Your task to perform on an android device: Open Reddit.com Image 0: 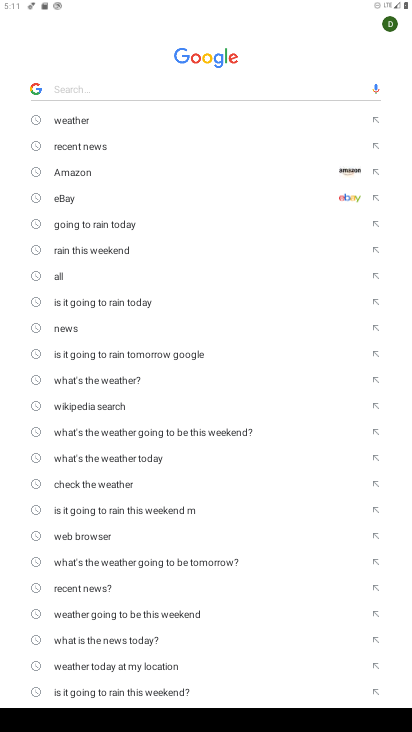
Step 0: press home button
Your task to perform on an android device: Open Reddit.com Image 1: 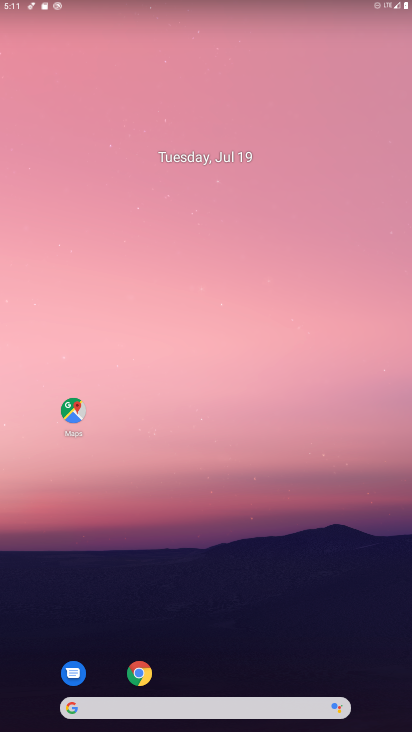
Step 1: click (137, 670)
Your task to perform on an android device: Open Reddit.com Image 2: 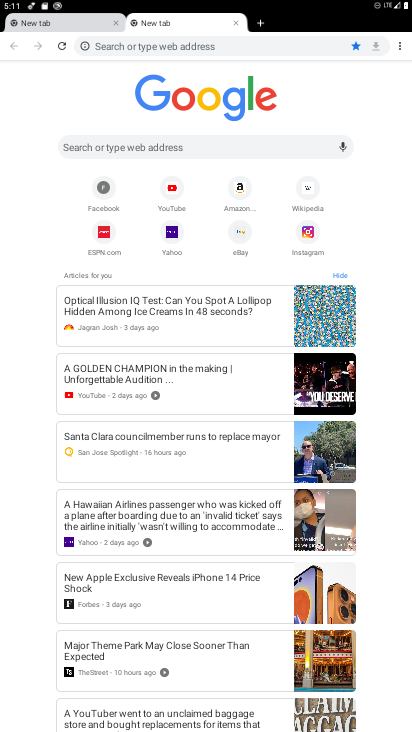
Step 2: click (150, 142)
Your task to perform on an android device: Open Reddit.com Image 3: 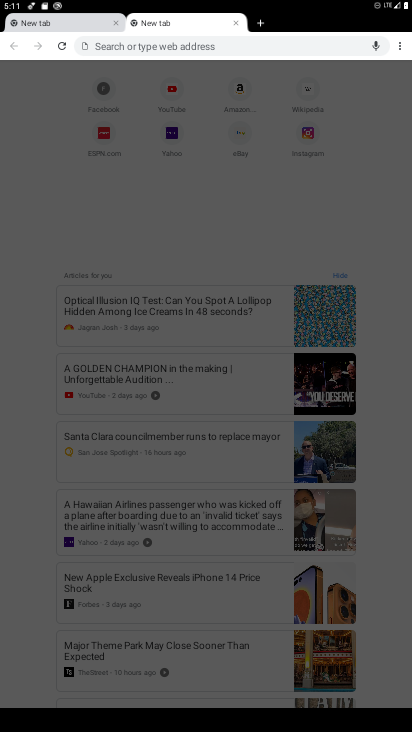
Step 3: type "reddit.com"
Your task to perform on an android device: Open Reddit.com Image 4: 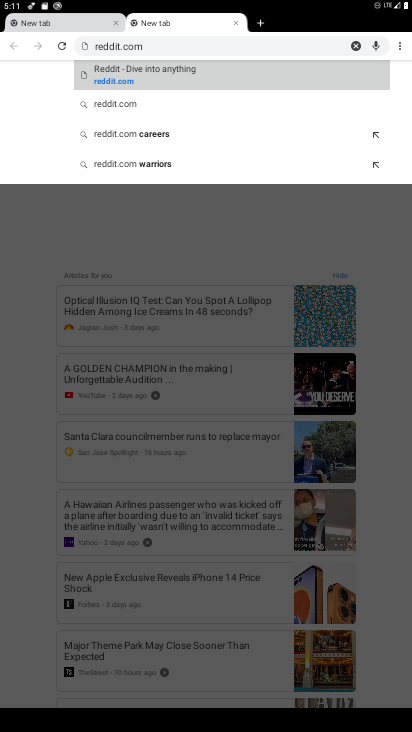
Step 4: click (148, 71)
Your task to perform on an android device: Open Reddit.com Image 5: 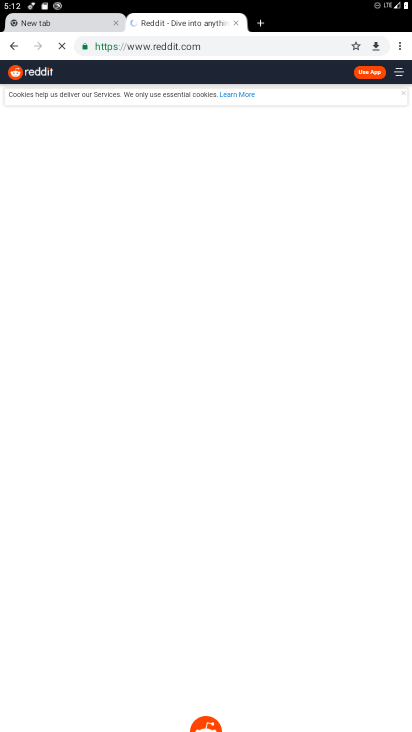
Step 5: task complete